Your task to perform on an android device: toggle show notifications on the lock screen Image 0: 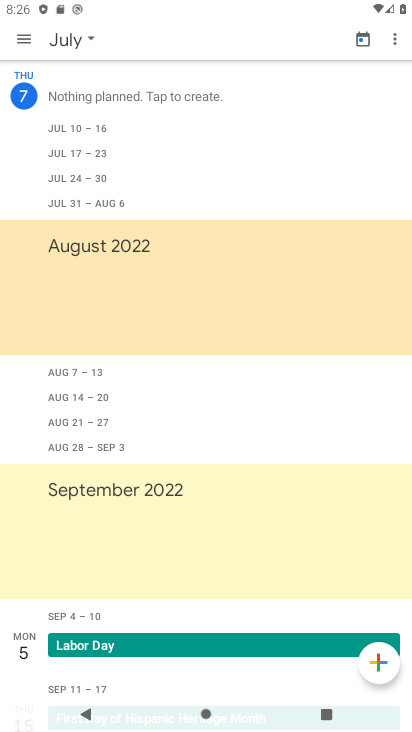
Step 0: press home button
Your task to perform on an android device: toggle show notifications on the lock screen Image 1: 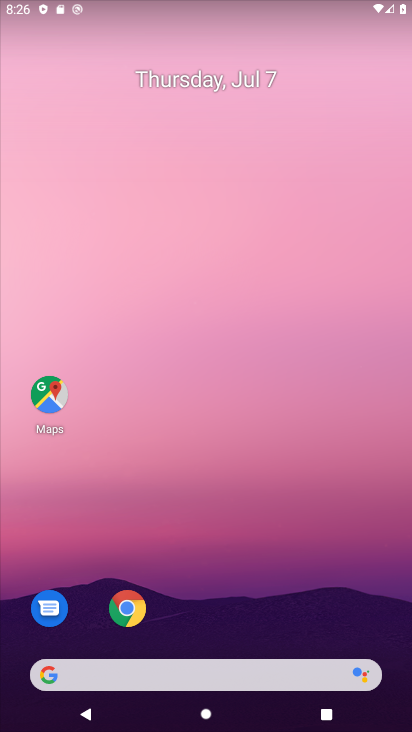
Step 1: drag from (184, 659) to (206, 441)
Your task to perform on an android device: toggle show notifications on the lock screen Image 2: 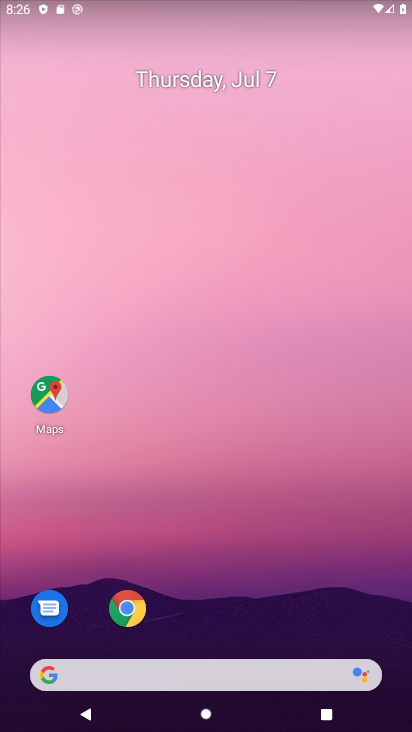
Step 2: click (206, 441)
Your task to perform on an android device: toggle show notifications on the lock screen Image 3: 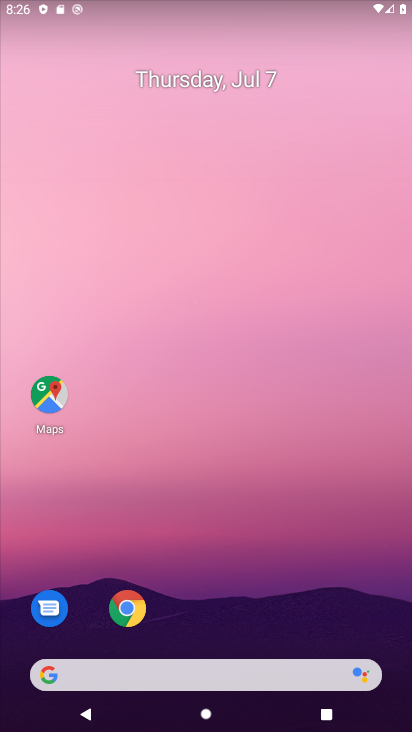
Step 3: drag from (181, 680) to (258, 62)
Your task to perform on an android device: toggle show notifications on the lock screen Image 4: 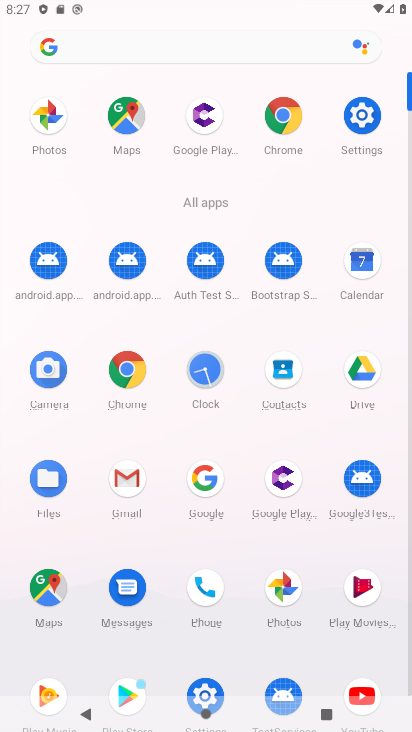
Step 4: click (361, 123)
Your task to perform on an android device: toggle show notifications on the lock screen Image 5: 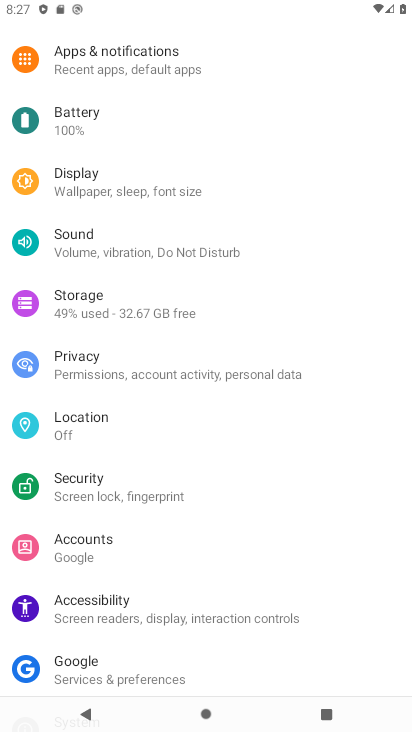
Step 5: click (121, 69)
Your task to perform on an android device: toggle show notifications on the lock screen Image 6: 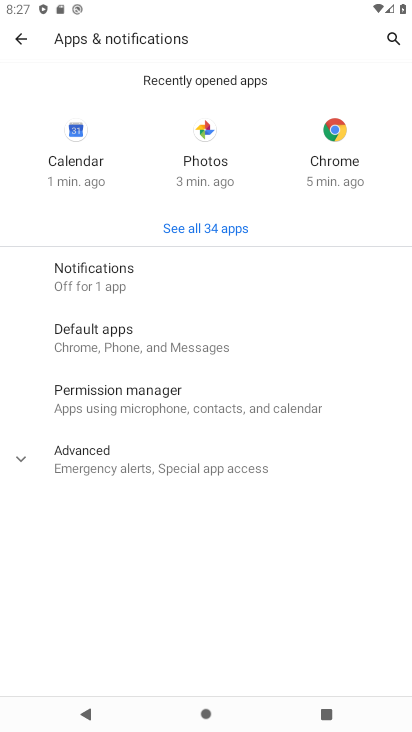
Step 6: click (104, 489)
Your task to perform on an android device: toggle show notifications on the lock screen Image 7: 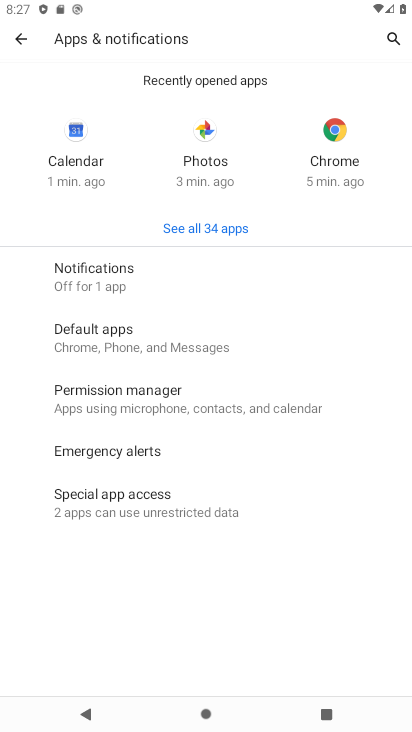
Step 7: task complete